Your task to perform on an android device: Open calendar and show me the second week of next month Image 0: 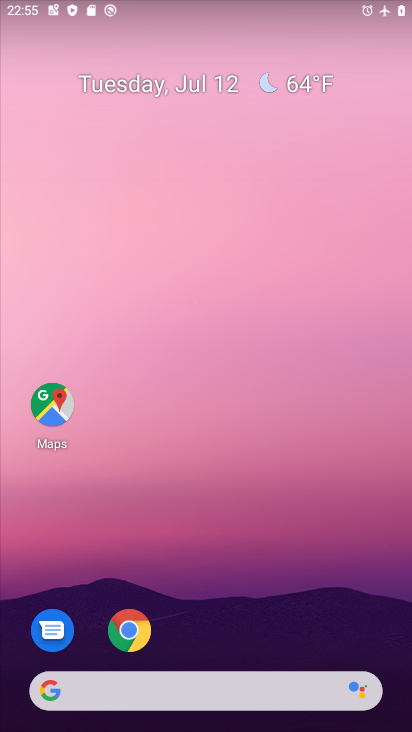
Step 0: drag from (246, 668) to (146, 1)
Your task to perform on an android device: Open calendar and show me the second week of next month Image 1: 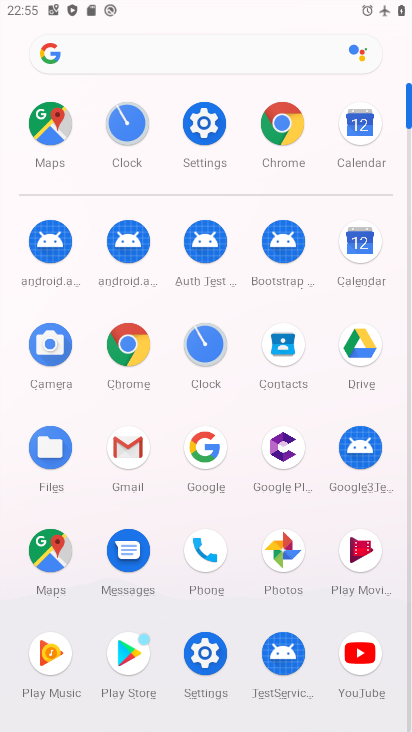
Step 1: click (368, 245)
Your task to perform on an android device: Open calendar and show me the second week of next month Image 2: 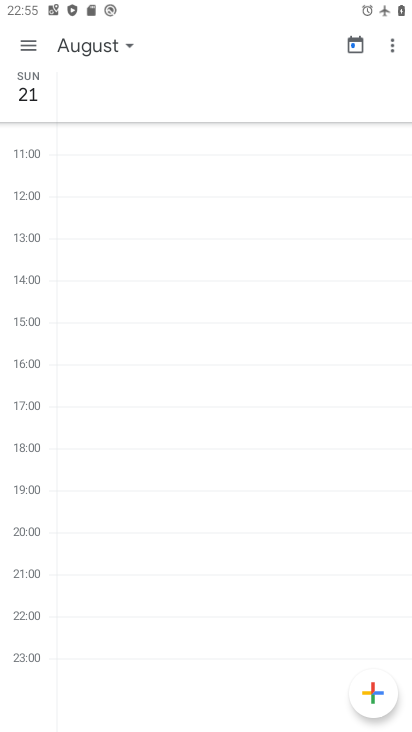
Step 2: click (25, 52)
Your task to perform on an android device: Open calendar and show me the second week of next month Image 3: 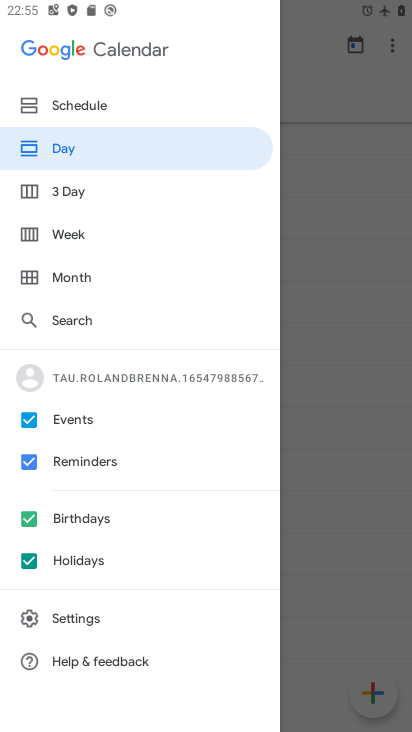
Step 3: click (79, 255)
Your task to perform on an android device: Open calendar and show me the second week of next month Image 4: 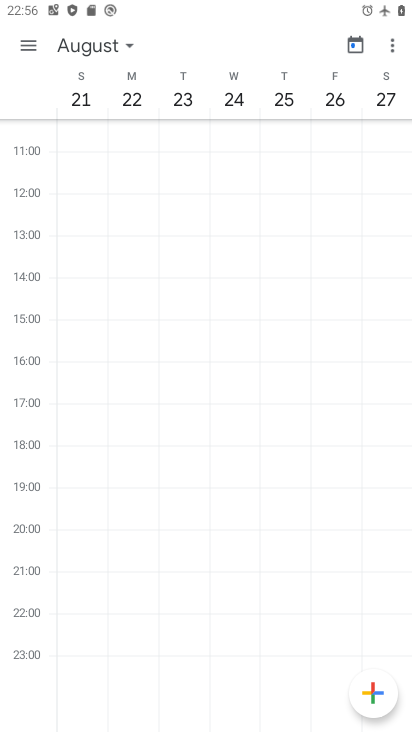
Step 4: task complete